Your task to perform on an android device: Open Google Chrome and open the bookmarks view Image 0: 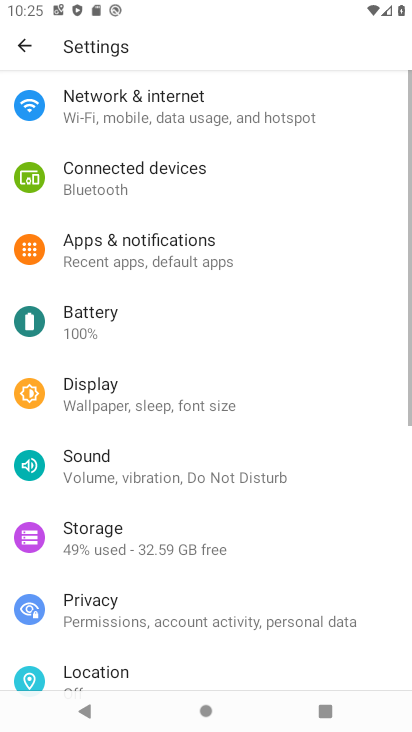
Step 0: press home button
Your task to perform on an android device: Open Google Chrome and open the bookmarks view Image 1: 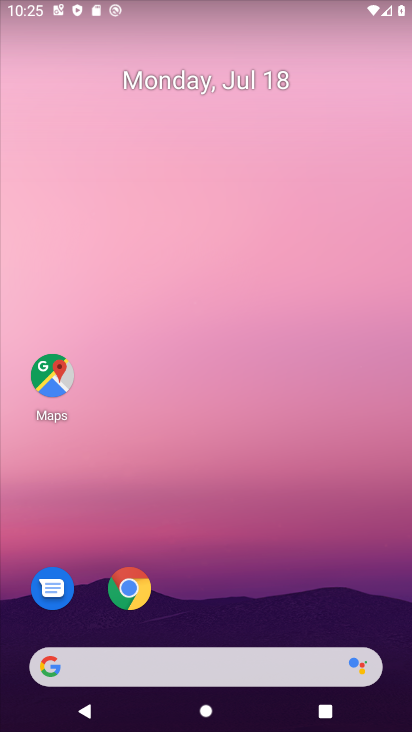
Step 1: click (124, 595)
Your task to perform on an android device: Open Google Chrome and open the bookmarks view Image 2: 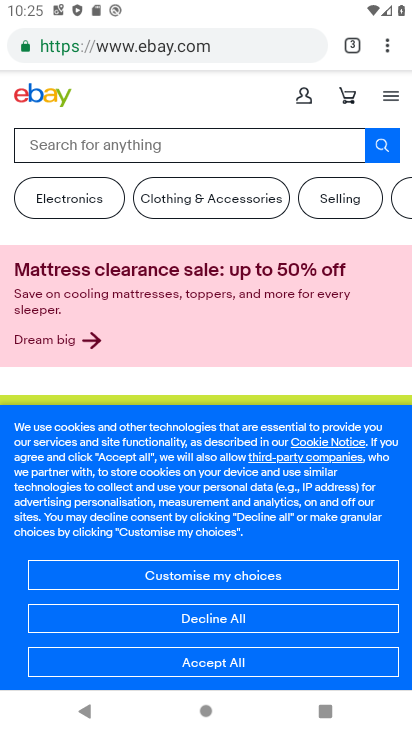
Step 2: click (387, 49)
Your task to perform on an android device: Open Google Chrome and open the bookmarks view Image 3: 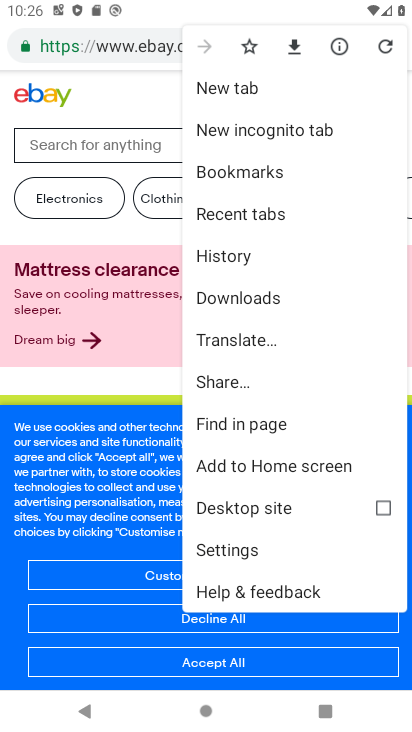
Step 3: click (239, 170)
Your task to perform on an android device: Open Google Chrome and open the bookmarks view Image 4: 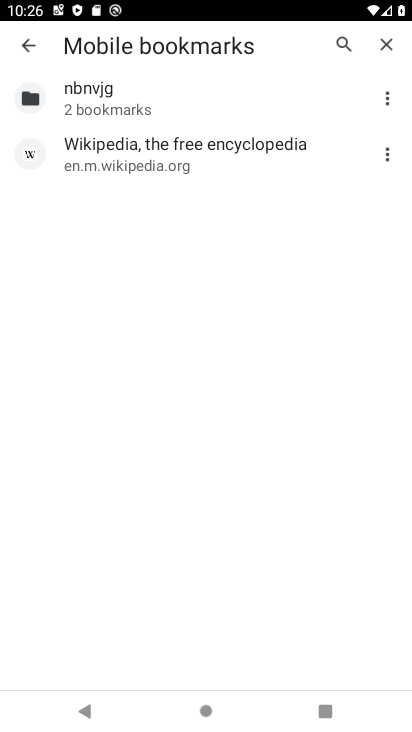
Step 4: task complete